Your task to perform on an android device: turn on priority inbox in the gmail app Image 0: 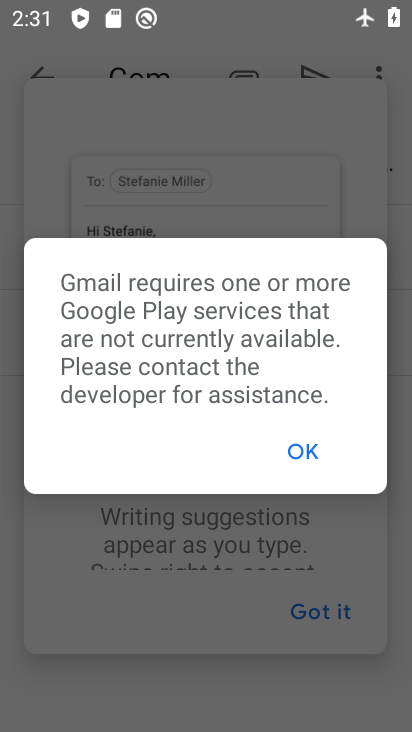
Step 0: press home button
Your task to perform on an android device: turn on priority inbox in the gmail app Image 1: 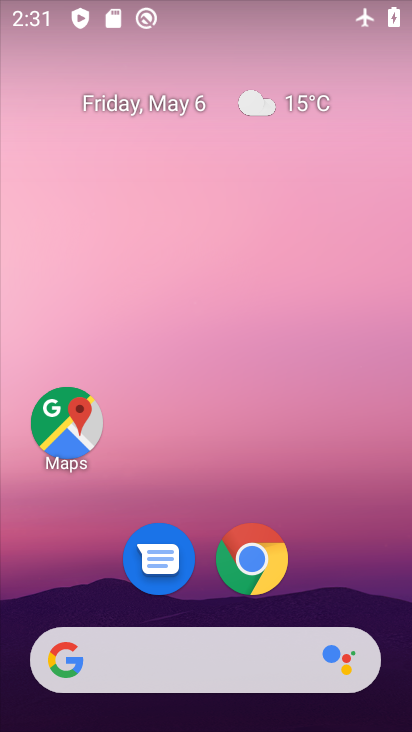
Step 1: drag from (353, 557) to (290, 9)
Your task to perform on an android device: turn on priority inbox in the gmail app Image 2: 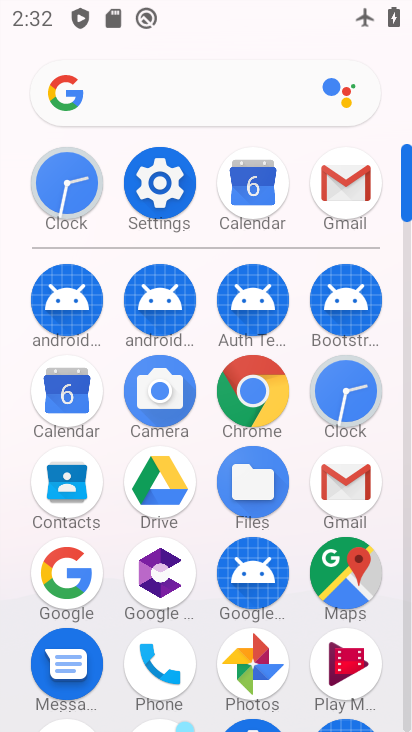
Step 2: click (366, 496)
Your task to perform on an android device: turn on priority inbox in the gmail app Image 3: 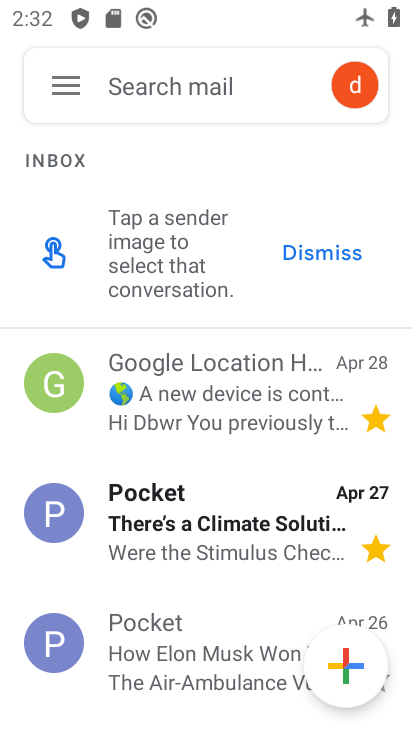
Step 3: click (61, 104)
Your task to perform on an android device: turn on priority inbox in the gmail app Image 4: 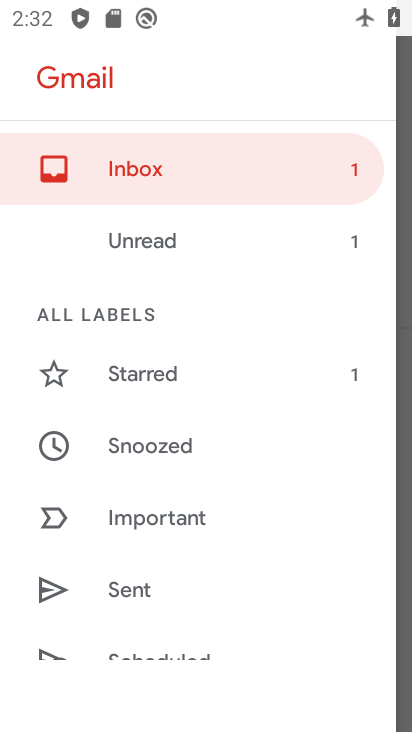
Step 4: drag from (126, 632) to (102, 324)
Your task to perform on an android device: turn on priority inbox in the gmail app Image 5: 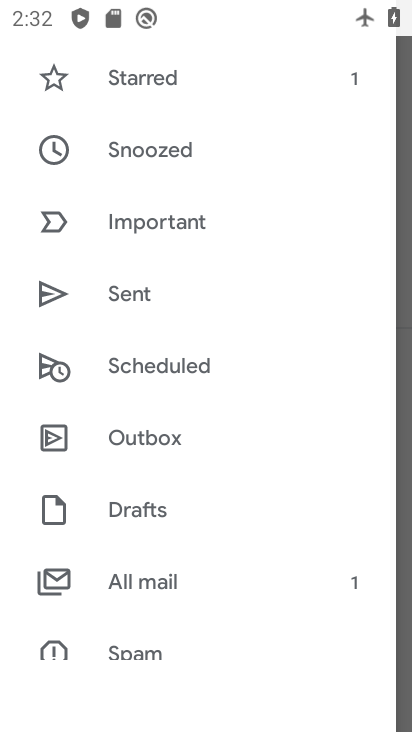
Step 5: drag from (164, 590) to (199, 303)
Your task to perform on an android device: turn on priority inbox in the gmail app Image 6: 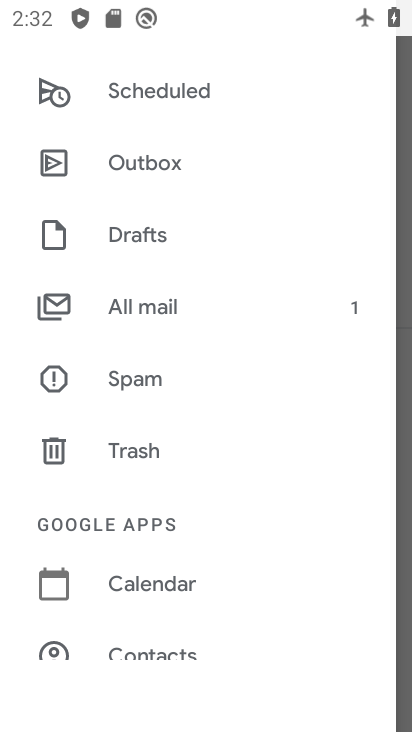
Step 6: drag from (222, 633) to (256, 206)
Your task to perform on an android device: turn on priority inbox in the gmail app Image 7: 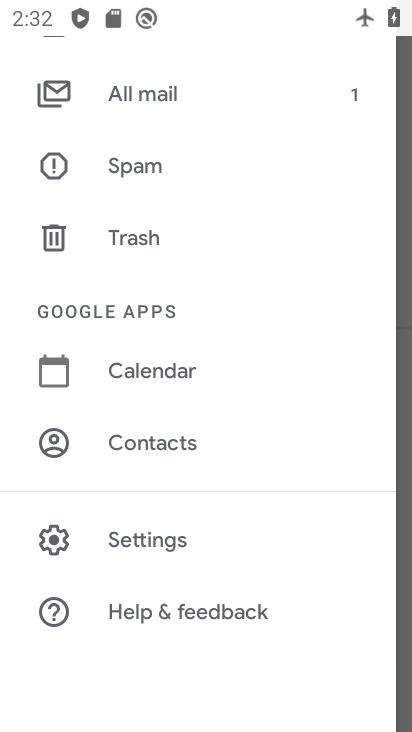
Step 7: click (212, 556)
Your task to perform on an android device: turn on priority inbox in the gmail app Image 8: 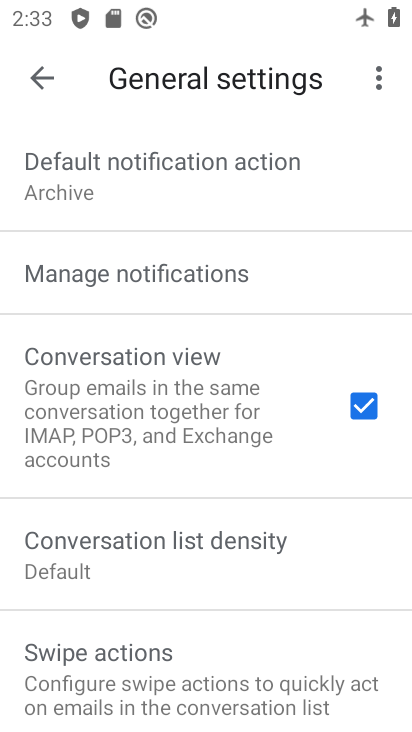
Step 8: drag from (198, 589) to (195, 325)
Your task to perform on an android device: turn on priority inbox in the gmail app Image 9: 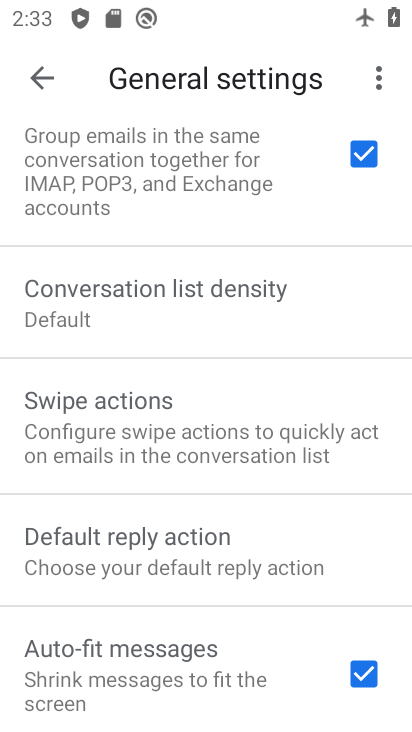
Step 9: drag from (162, 592) to (190, 305)
Your task to perform on an android device: turn on priority inbox in the gmail app Image 10: 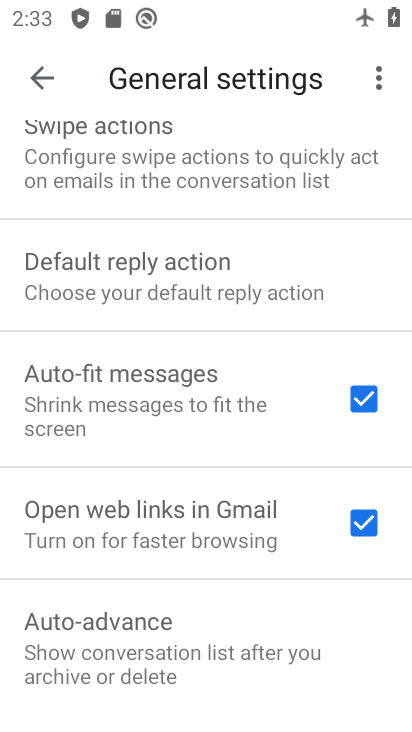
Step 10: drag from (198, 657) to (232, 258)
Your task to perform on an android device: turn on priority inbox in the gmail app Image 11: 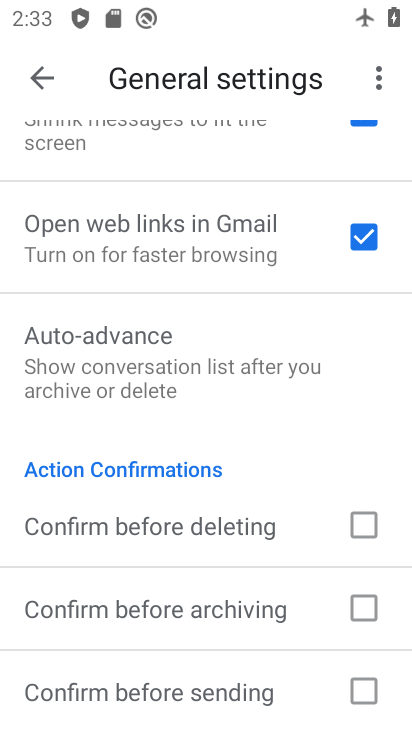
Step 11: click (26, 78)
Your task to perform on an android device: turn on priority inbox in the gmail app Image 12: 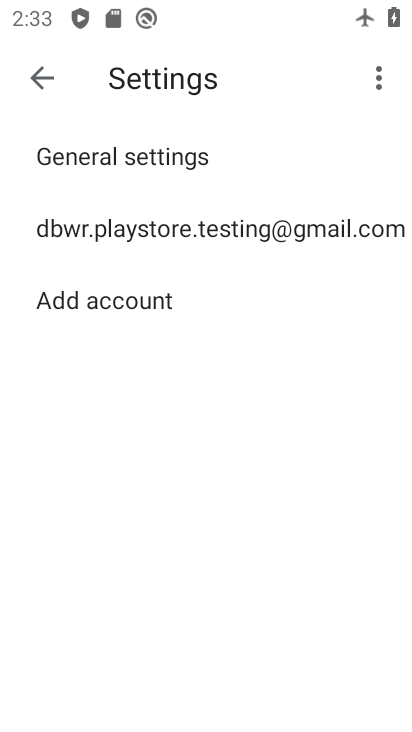
Step 12: click (139, 242)
Your task to perform on an android device: turn on priority inbox in the gmail app Image 13: 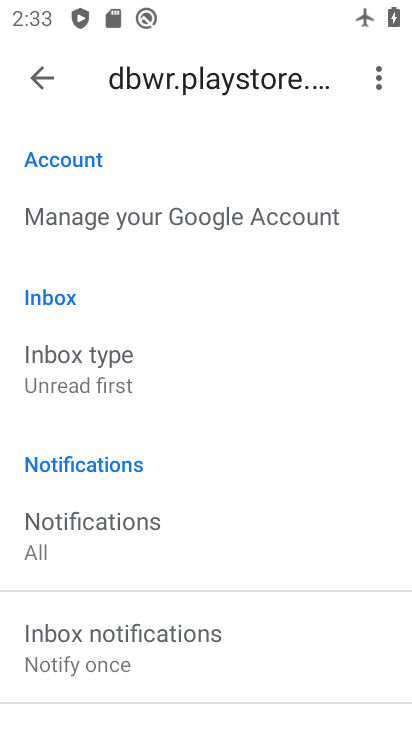
Step 13: click (167, 393)
Your task to perform on an android device: turn on priority inbox in the gmail app Image 14: 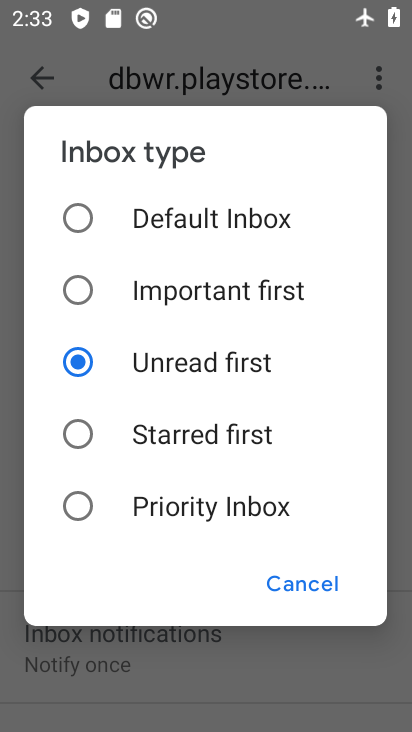
Step 14: click (175, 493)
Your task to perform on an android device: turn on priority inbox in the gmail app Image 15: 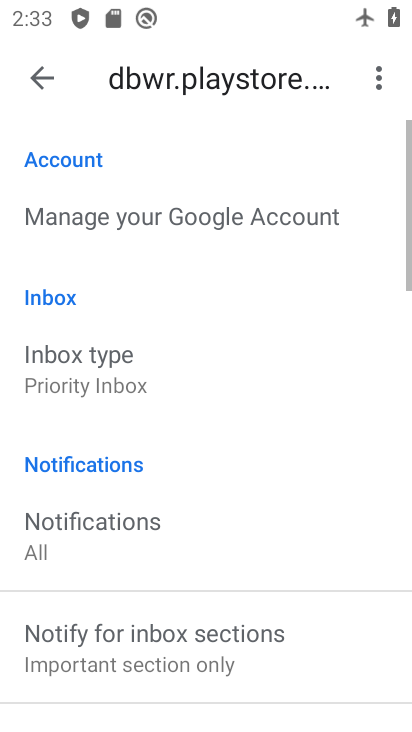
Step 15: task complete